Your task to perform on an android device: turn on translation in the chrome app Image 0: 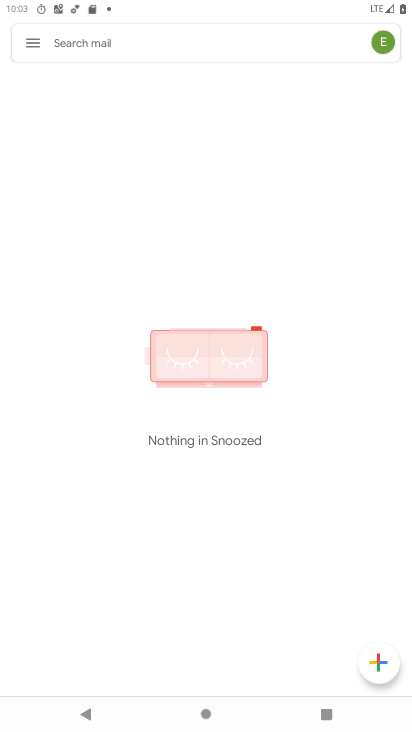
Step 0: press home button
Your task to perform on an android device: turn on translation in the chrome app Image 1: 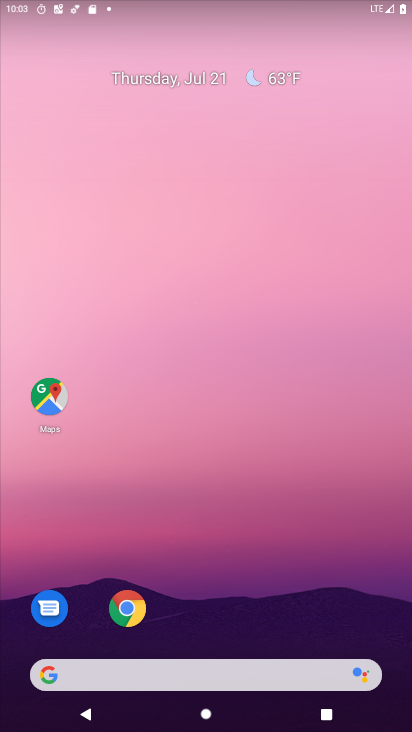
Step 1: click (131, 608)
Your task to perform on an android device: turn on translation in the chrome app Image 2: 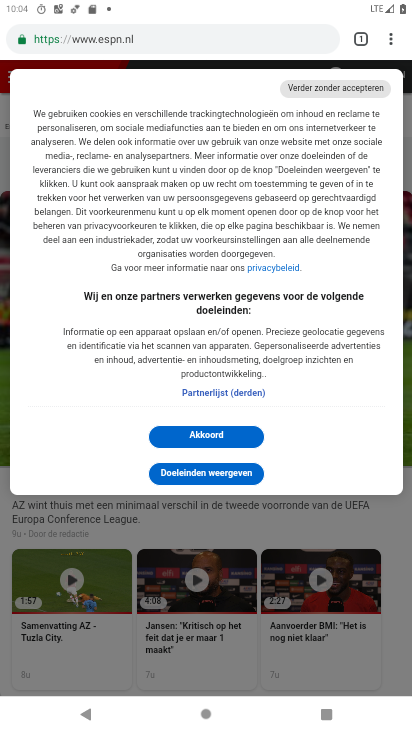
Step 2: click (391, 34)
Your task to perform on an android device: turn on translation in the chrome app Image 3: 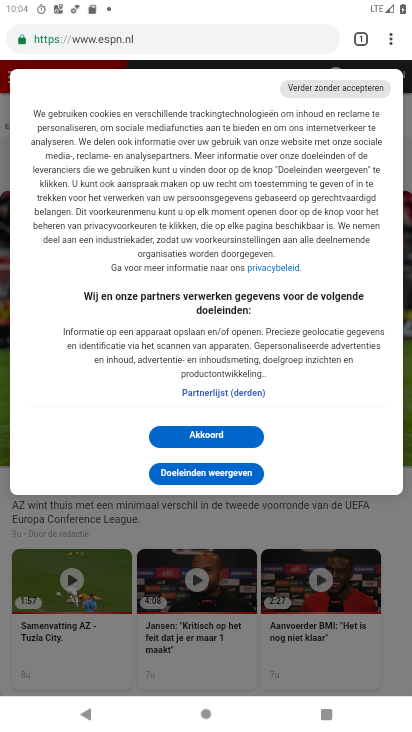
Step 3: click (393, 43)
Your task to perform on an android device: turn on translation in the chrome app Image 4: 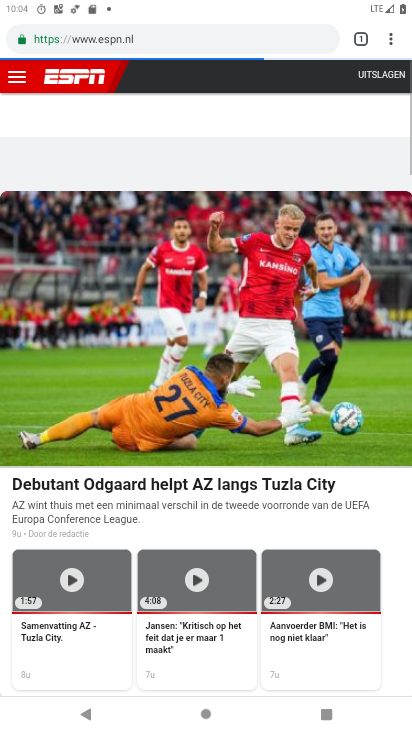
Step 4: click (388, 38)
Your task to perform on an android device: turn on translation in the chrome app Image 5: 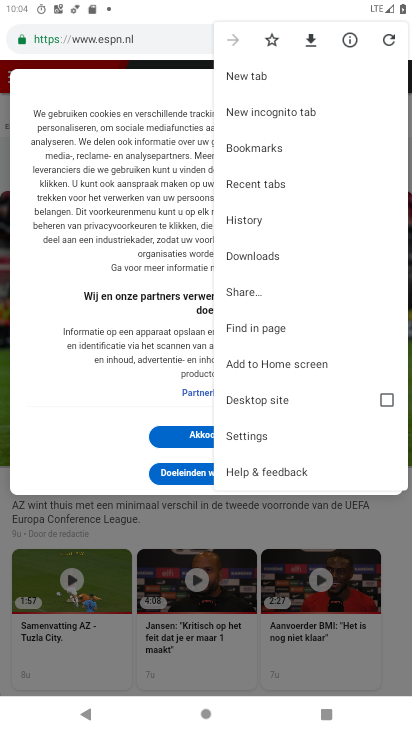
Step 5: click (254, 432)
Your task to perform on an android device: turn on translation in the chrome app Image 6: 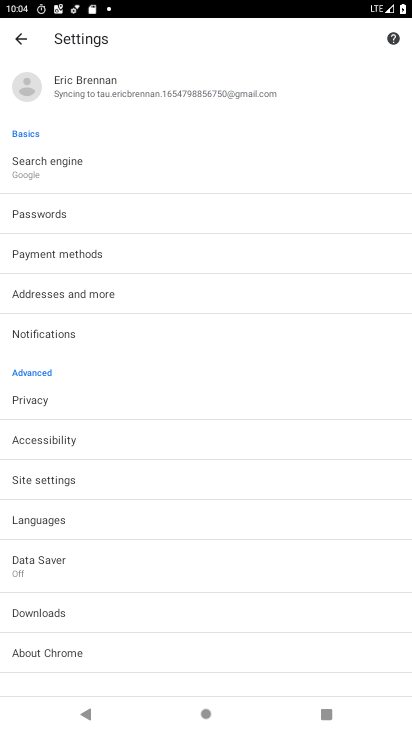
Step 6: click (71, 482)
Your task to perform on an android device: turn on translation in the chrome app Image 7: 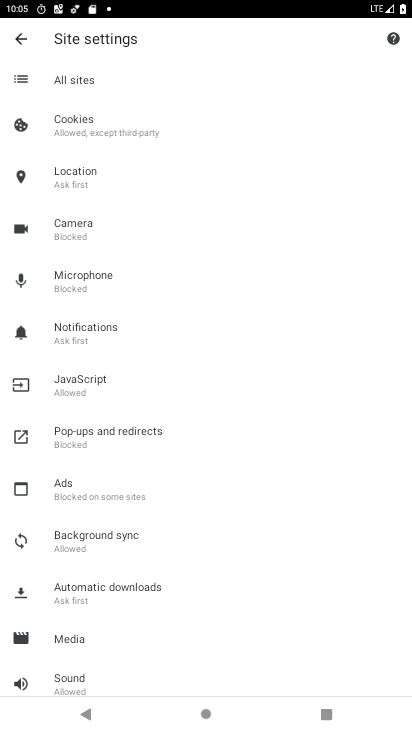
Step 7: task complete